Your task to perform on an android device: turn on the 12-hour format for clock Image 0: 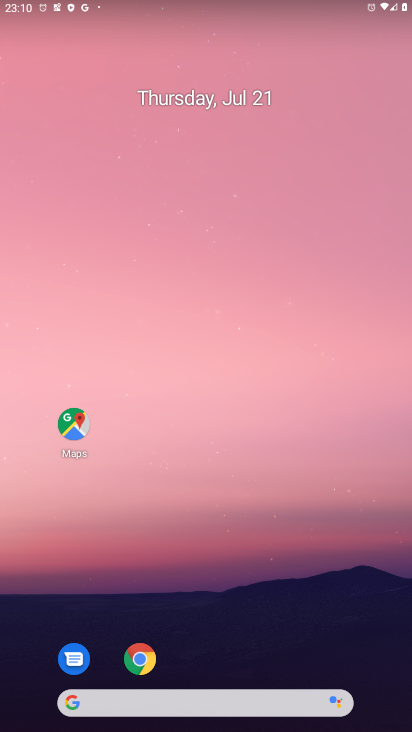
Step 0: drag from (227, 705) to (197, 84)
Your task to perform on an android device: turn on the 12-hour format for clock Image 1: 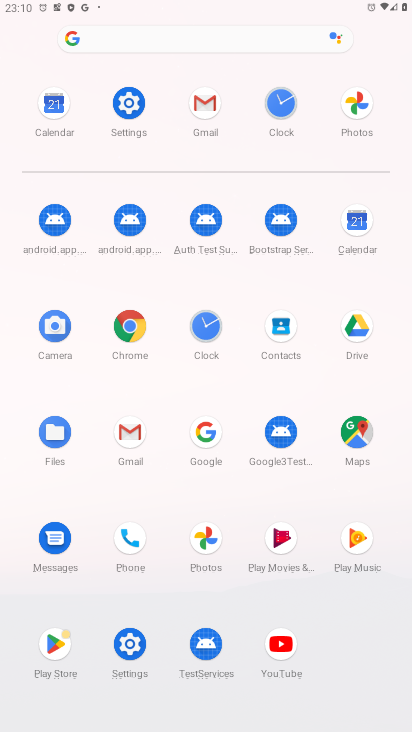
Step 1: click (282, 106)
Your task to perform on an android device: turn on the 12-hour format for clock Image 2: 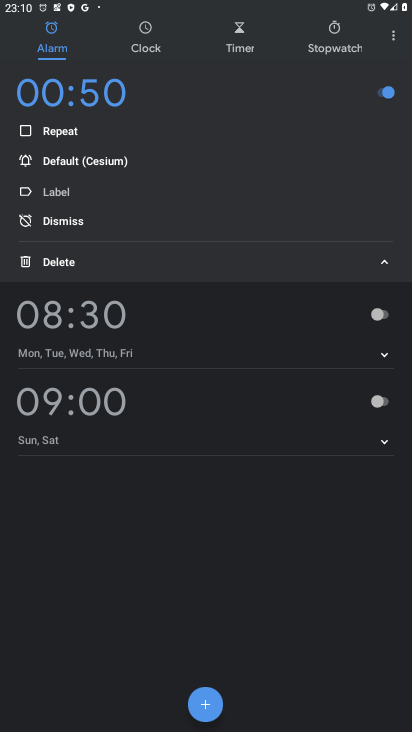
Step 2: click (396, 37)
Your task to perform on an android device: turn on the 12-hour format for clock Image 3: 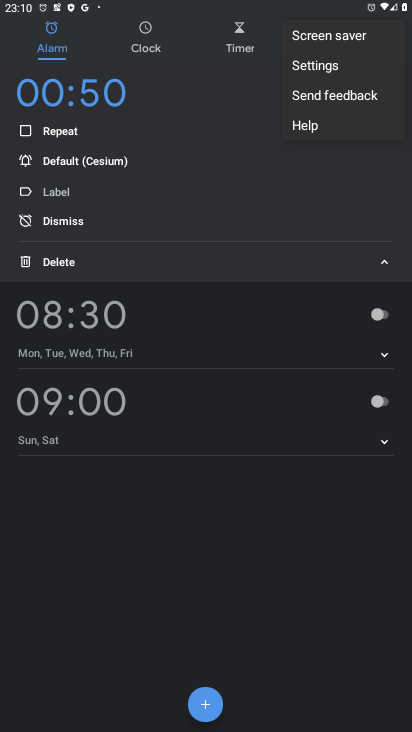
Step 3: click (339, 68)
Your task to perform on an android device: turn on the 12-hour format for clock Image 4: 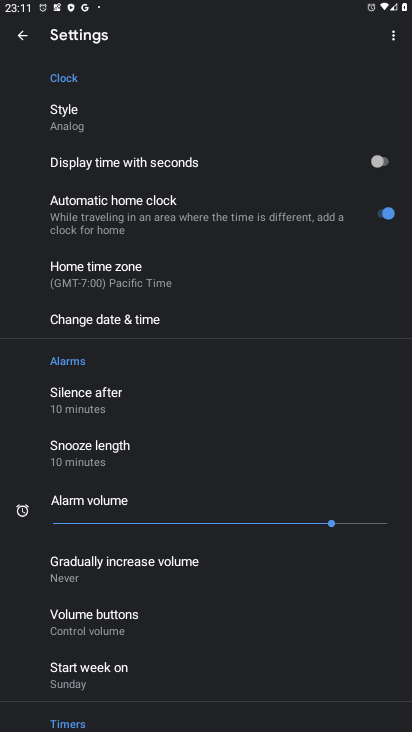
Step 4: click (143, 318)
Your task to perform on an android device: turn on the 12-hour format for clock Image 5: 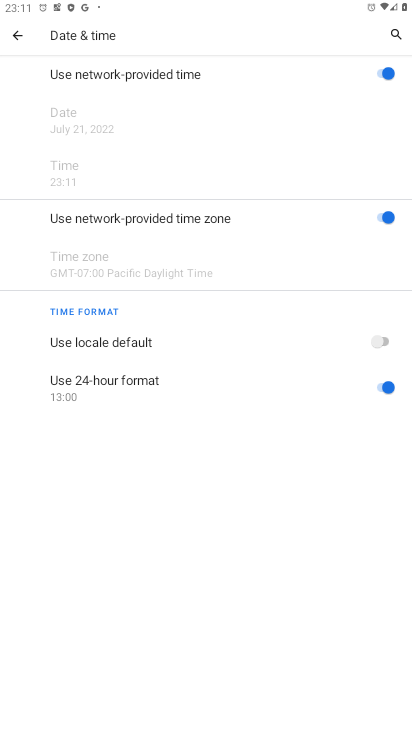
Step 5: click (375, 341)
Your task to perform on an android device: turn on the 12-hour format for clock Image 6: 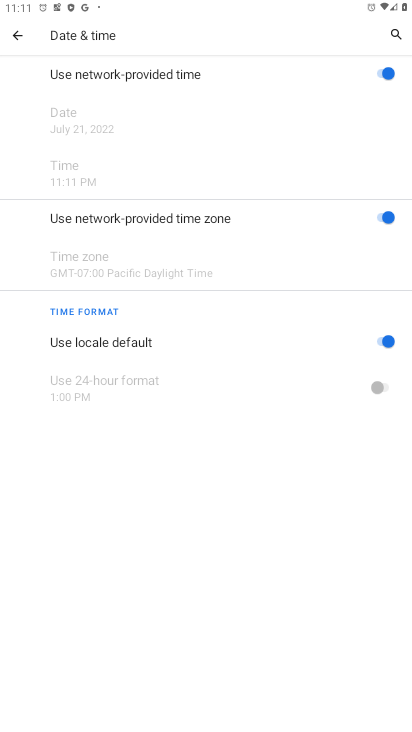
Step 6: task complete